Your task to perform on an android device: Open Amazon Image 0: 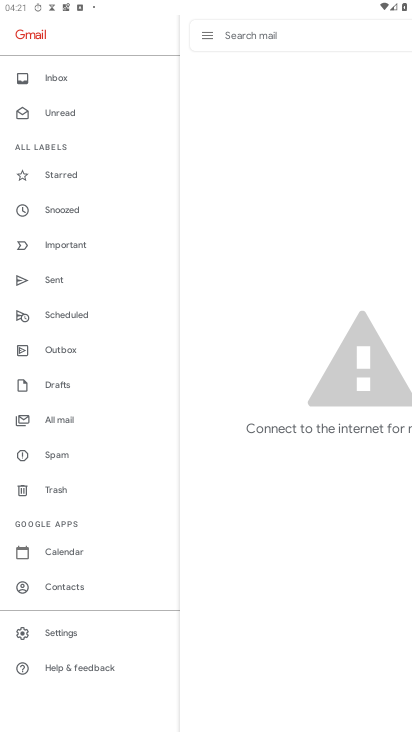
Step 0: press home button
Your task to perform on an android device: Open Amazon Image 1: 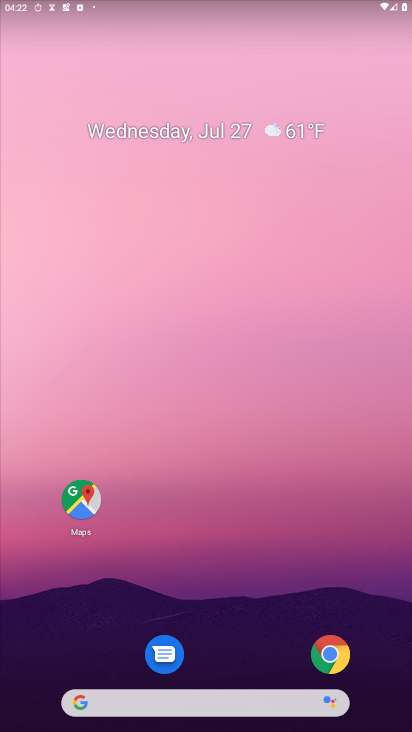
Step 1: drag from (188, 687) to (294, 161)
Your task to perform on an android device: Open Amazon Image 2: 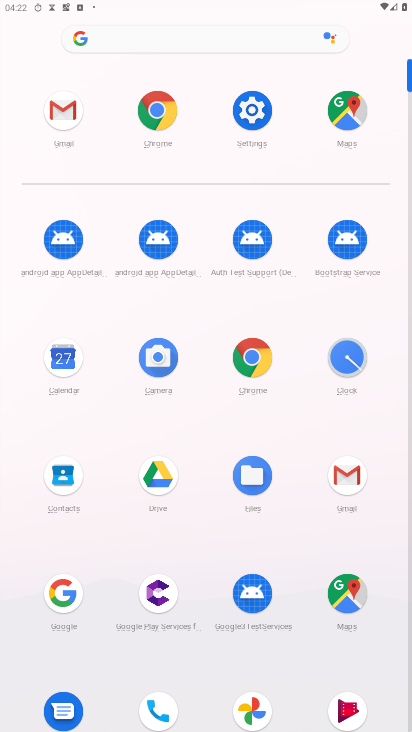
Step 2: click (254, 356)
Your task to perform on an android device: Open Amazon Image 3: 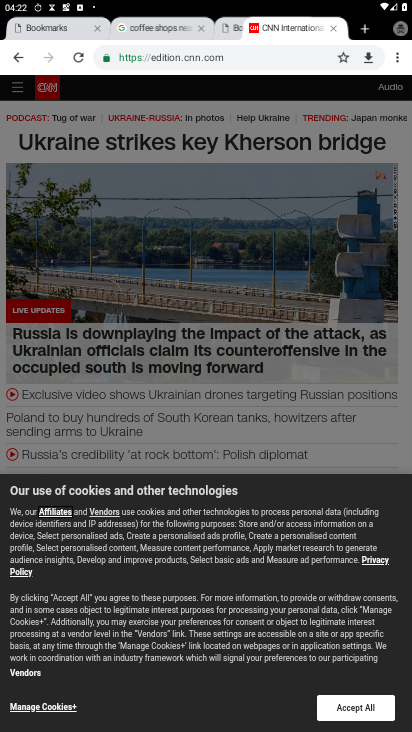
Step 3: click (236, 62)
Your task to perform on an android device: Open Amazon Image 4: 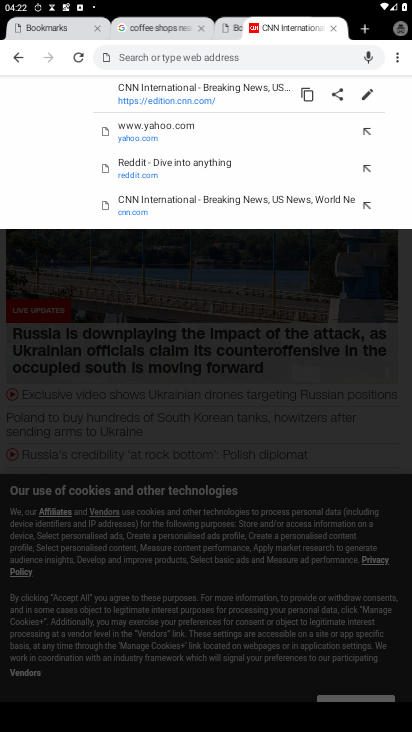
Step 4: type "amazon"
Your task to perform on an android device: Open Amazon Image 5: 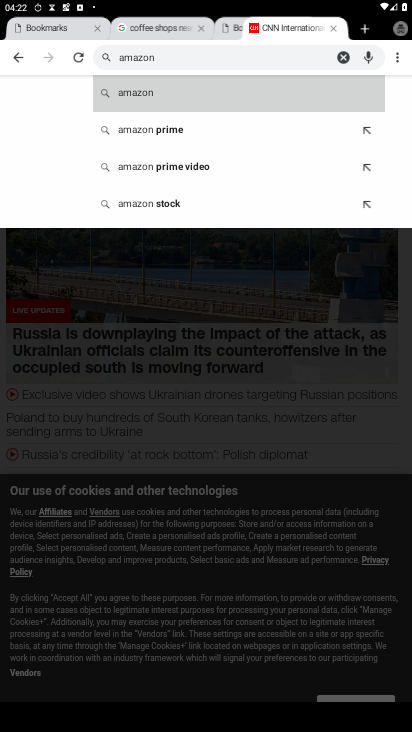
Step 5: click (165, 94)
Your task to perform on an android device: Open Amazon Image 6: 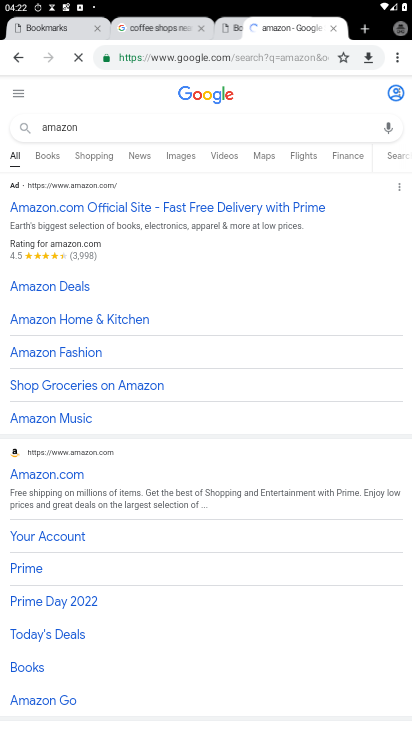
Step 6: task complete